Your task to perform on an android device: add a contact in the contacts app Image 0: 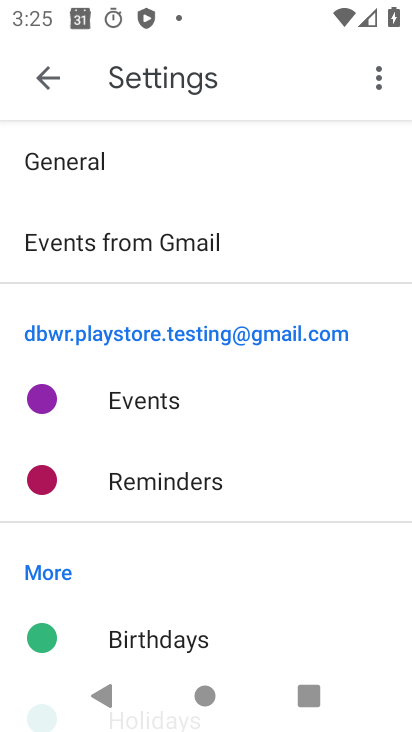
Step 0: press home button
Your task to perform on an android device: add a contact in the contacts app Image 1: 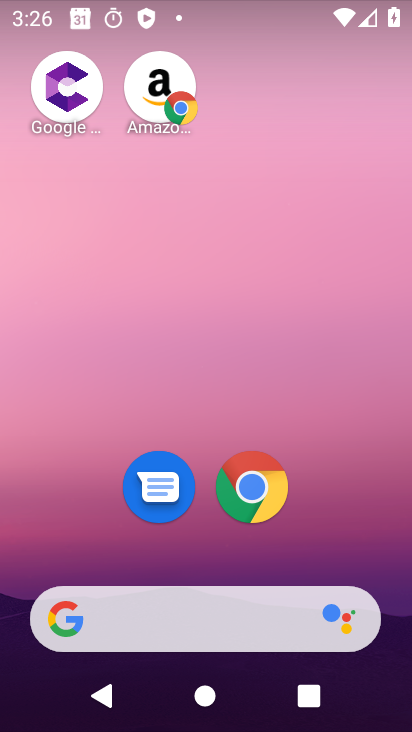
Step 1: drag from (191, 600) to (157, 41)
Your task to perform on an android device: add a contact in the contacts app Image 2: 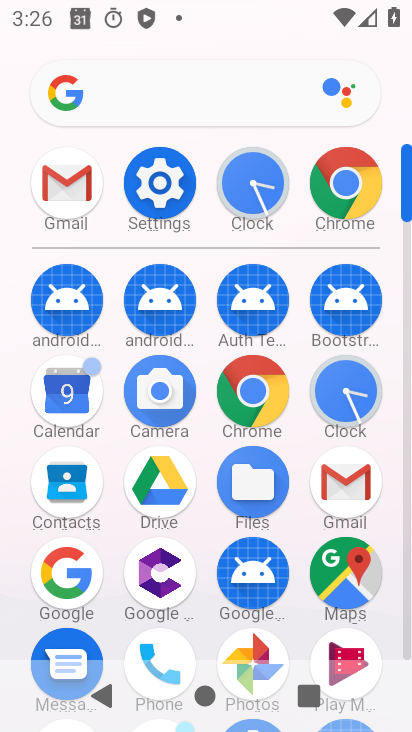
Step 2: click (53, 499)
Your task to perform on an android device: add a contact in the contacts app Image 3: 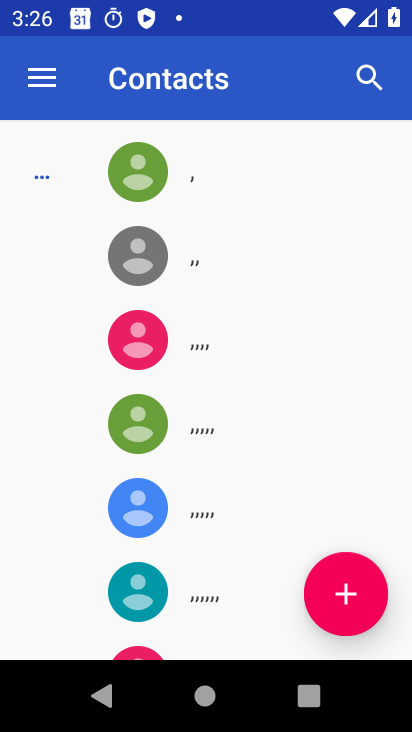
Step 3: click (323, 578)
Your task to perform on an android device: add a contact in the contacts app Image 4: 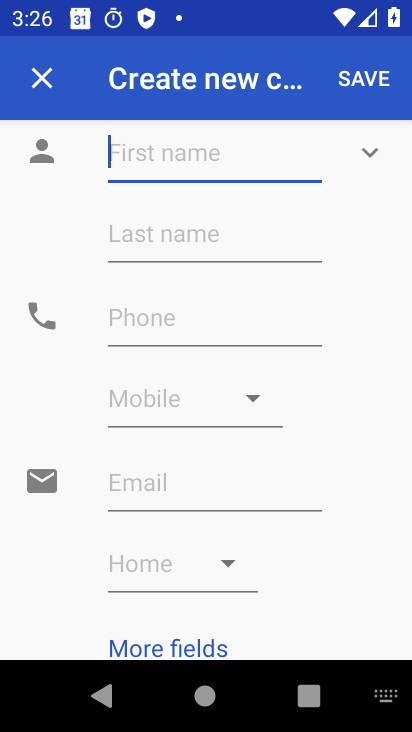
Step 4: type "hghfjjjjkjhkdh"
Your task to perform on an android device: add a contact in the contacts app Image 5: 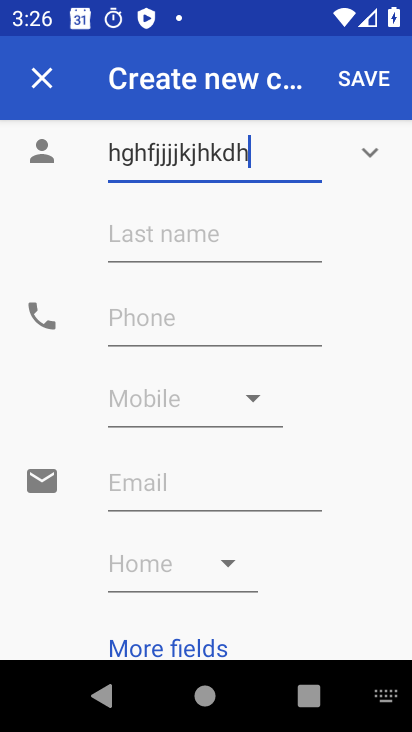
Step 5: click (232, 355)
Your task to perform on an android device: add a contact in the contacts app Image 6: 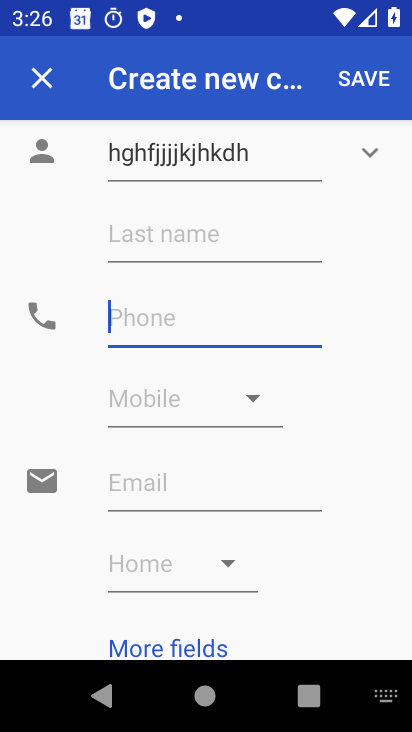
Step 6: type "98667889766"
Your task to perform on an android device: add a contact in the contacts app Image 7: 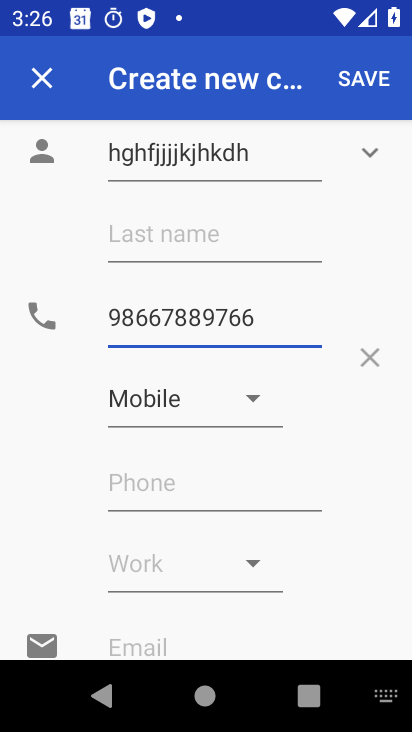
Step 7: click (372, 72)
Your task to perform on an android device: add a contact in the contacts app Image 8: 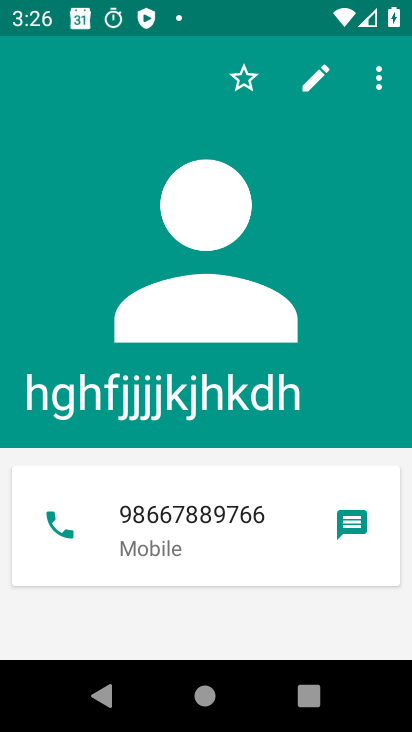
Step 8: task complete